Your task to perform on an android device: turn off smart reply in the gmail app Image 0: 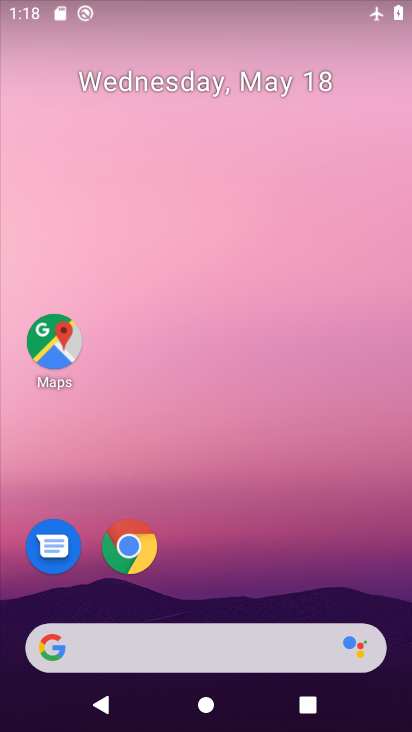
Step 0: drag from (266, 506) to (297, 98)
Your task to perform on an android device: turn off smart reply in the gmail app Image 1: 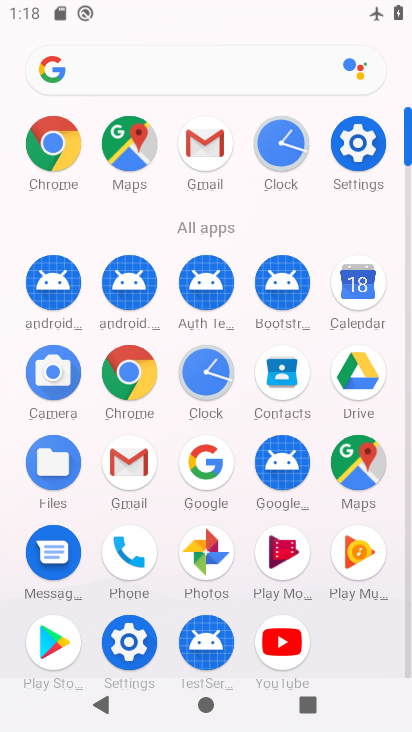
Step 1: click (214, 162)
Your task to perform on an android device: turn off smart reply in the gmail app Image 2: 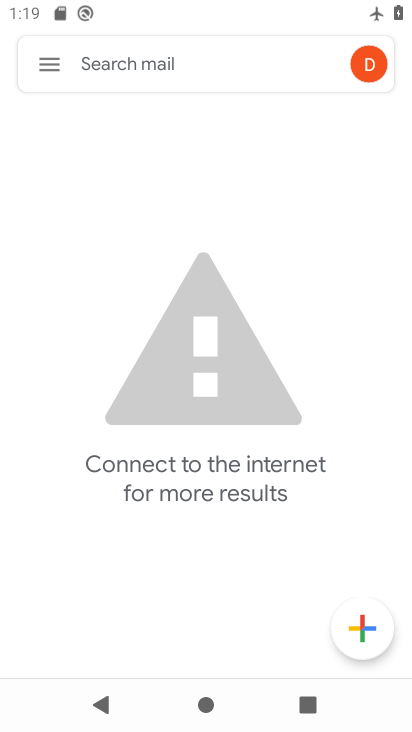
Step 2: click (43, 66)
Your task to perform on an android device: turn off smart reply in the gmail app Image 3: 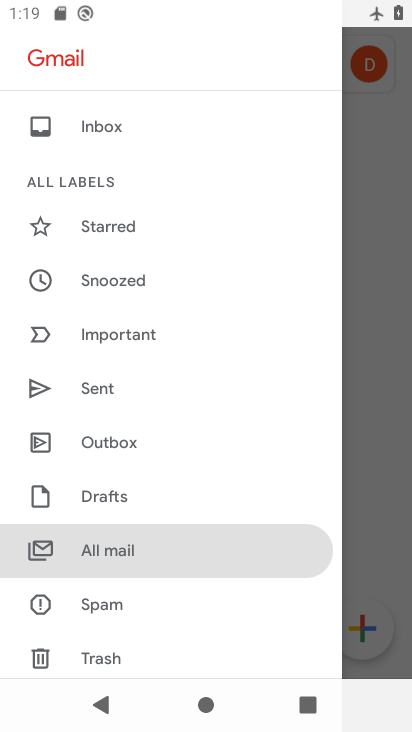
Step 3: drag from (145, 650) to (140, 364)
Your task to perform on an android device: turn off smart reply in the gmail app Image 4: 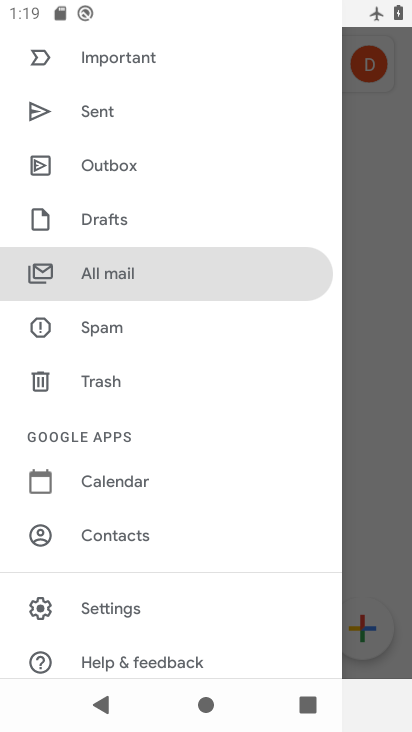
Step 4: click (132, 615)
Your task to perform on an android device: turn off smart reply in the gmail app Image 5: 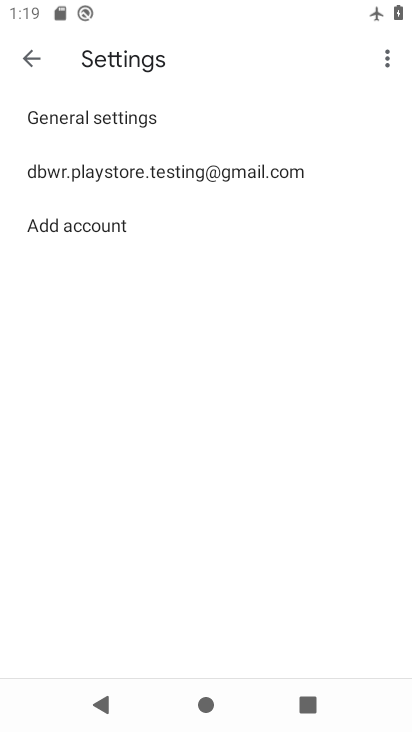
Step 5: click (153, 176)
Your task to perform on an android device: turn off smart reply in the gmail app Image 6: 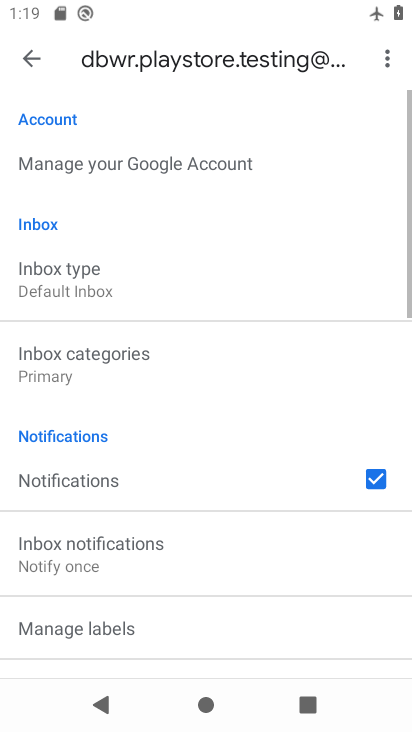
Step 6: drag from (233, 581) to (245, 186)
Your task to perform on an android device: turn off smart reply in the gmail app Image 7: 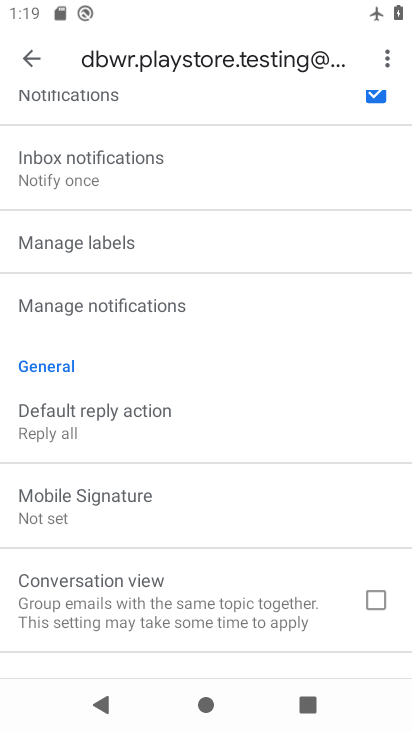
Step 7: drag from (173, 530) to (154, 132)
Your task to perform on an android device: turn off smart reply in the gmail app Image 8: 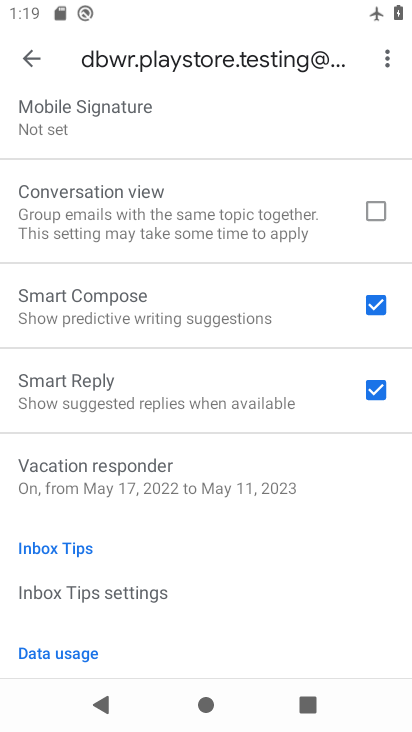
Step 8: click (378, 395)
Your task to perform on an android device: turn off smart reply in the gmail app Image 9: 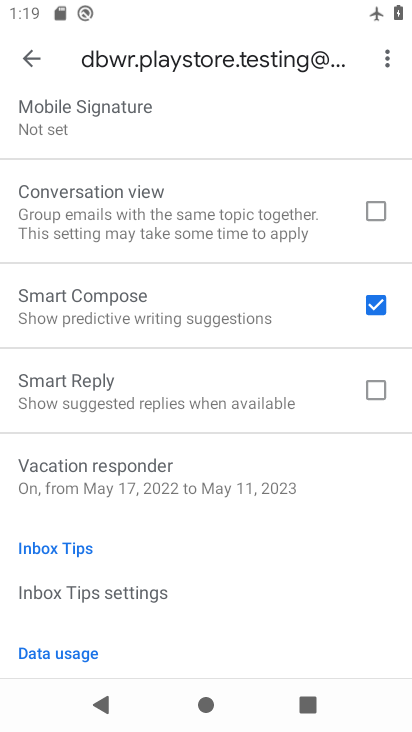
Step 9: task complete